Your task to perform on an android device: Play the last video I watched on Youtube Image 0: 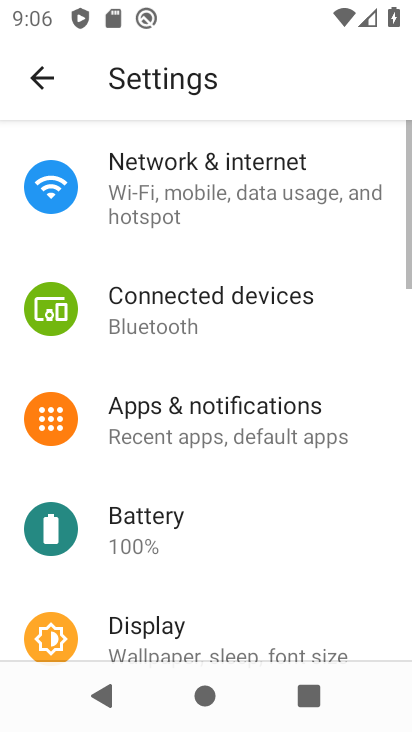
Step 0: press home button
Your task to perform on an android device: Play the last video I watched on Youtube Image 1: 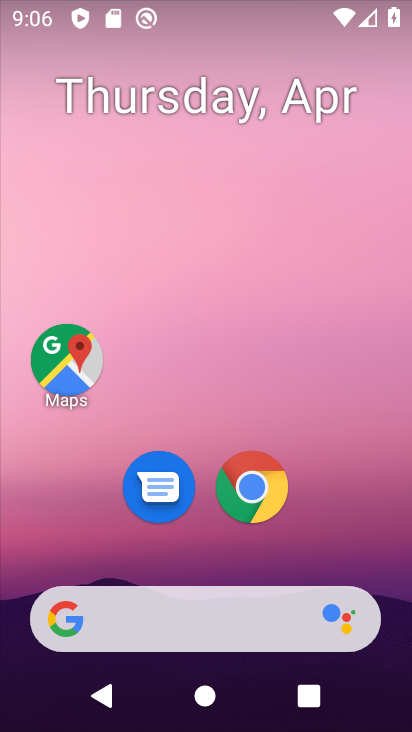
Step 1: drag from (341, 553) to (340, 108)
Your task to perform on an android device: Play the last video I watched on Youtube Image 2: 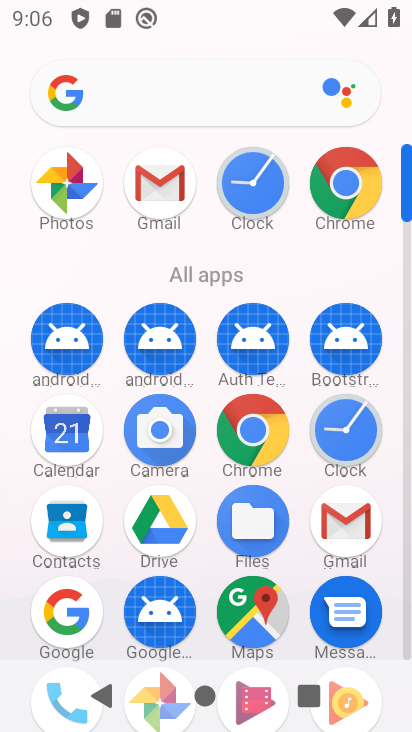
Step 2: drag from (397, 561) to (364, 215)
Your task to perform on an android device: Play the last video I watched on Youtube Image 3: 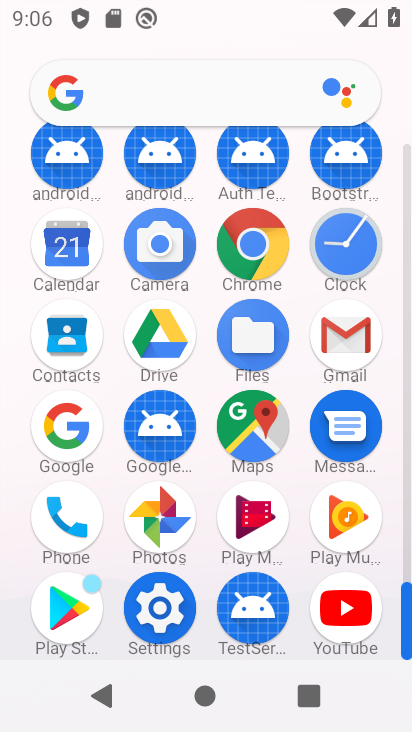
Step 3: click (347, 612)
Your task to perform on an android device: Play the last video I watched on Youtube Image 4: 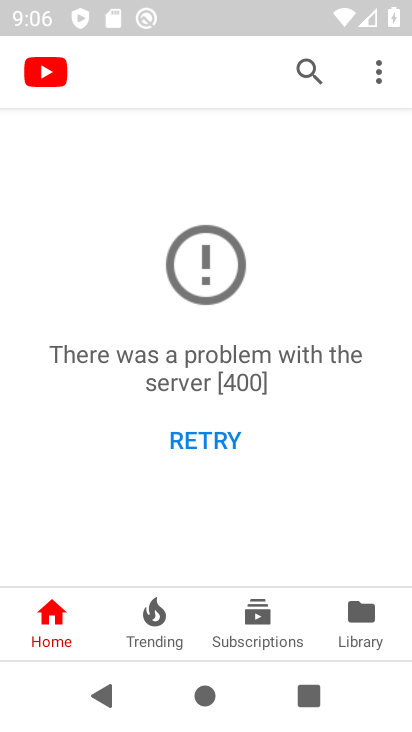
Step 4: click (355, 626)
Your task to perform on an android device: Play the last video I watched on Youtube Image 5: 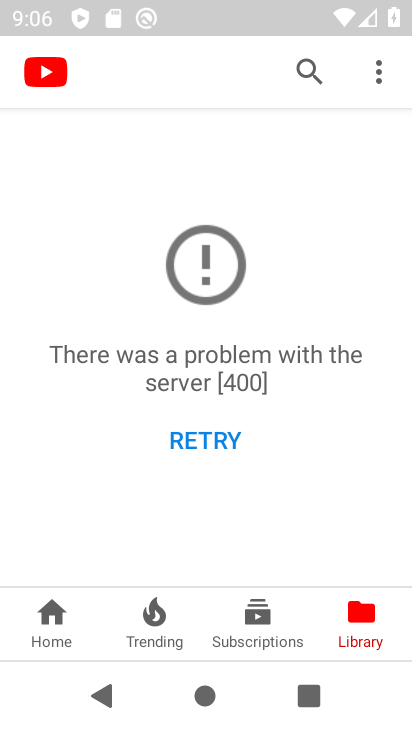
Step 5: click (355, 622)
Your task to perform on an android device: Play the last video I watched on Youtube Image 6: 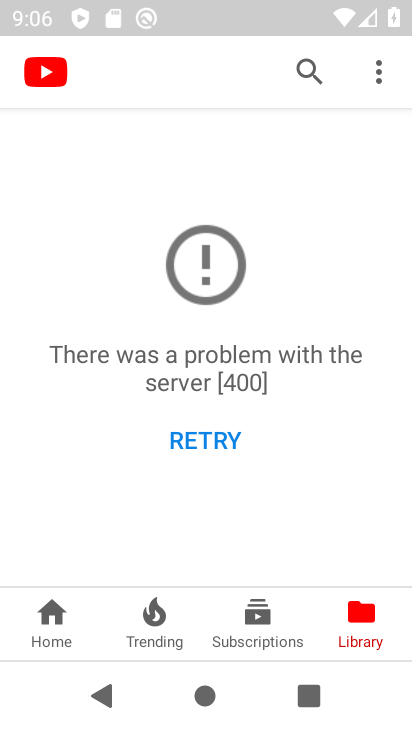
Step 6: click (353, 627)
Your task to perform on an android device: Play the last video I watched on Youtube Image 7: 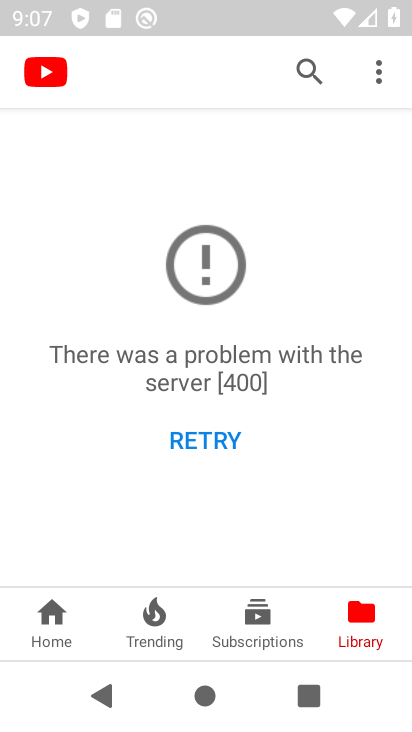
Step 7: task complete